Your task to perform on an android device: Go to sound settings Image 0: 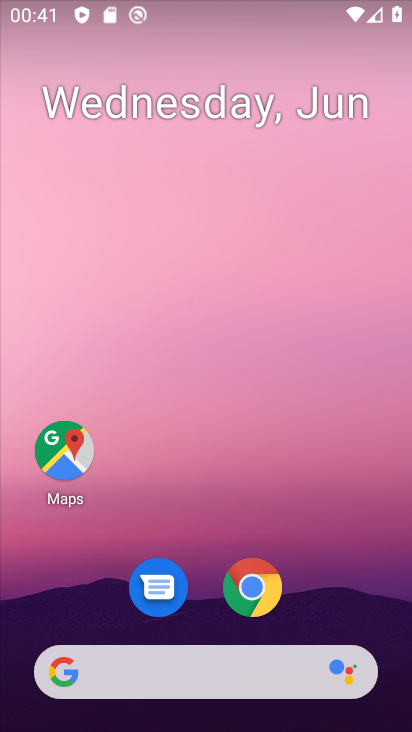
Step 0: drag from (353, 518) to (236, 112)
Your task to perform on an android device: Go to sound settings Image 1: 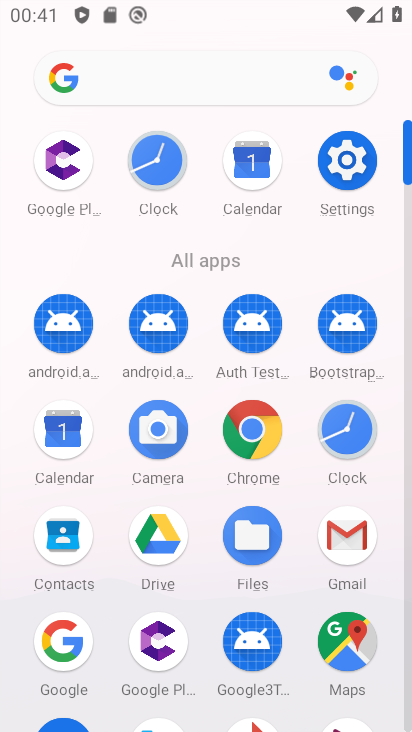
Step 1: click (348, 159)
Your task to perform on an android device: Go to sound settings Image 2: 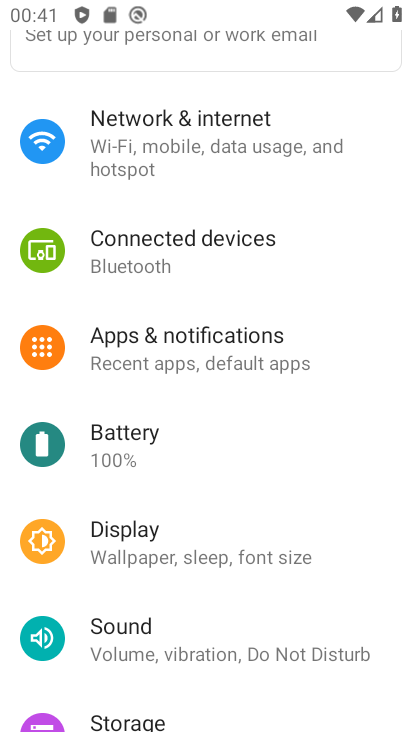
Step 2: click (197, 641)
Your task to perform on an android device: Go to sound settings Image 3: 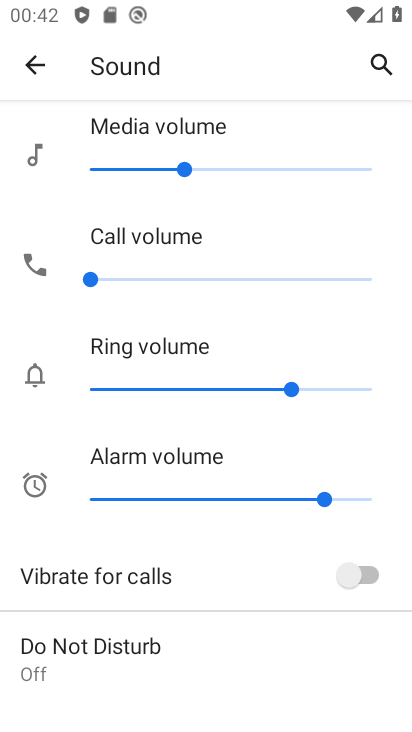
Step 3: task complete